Your task to perform on an android device: open wifi settings Image 0: 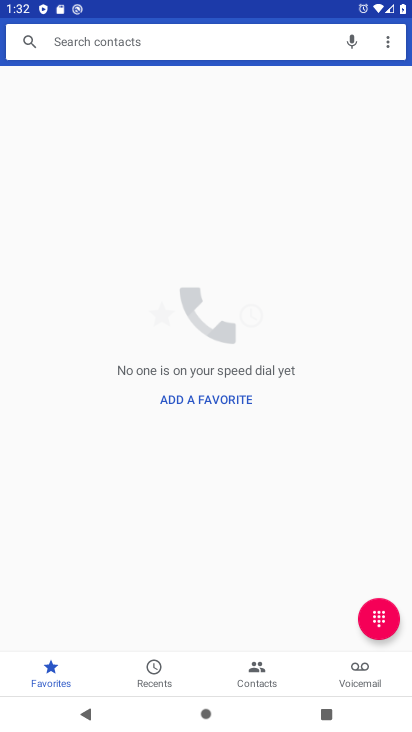
Step 0: drag from (146, 10) to (71, 509)
Your task to perform on an android device: open wifi settings Image 1: 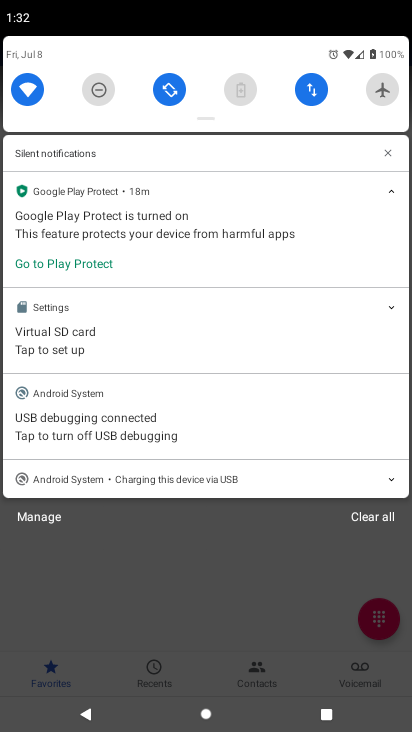
Step 1: click (36, 105)
Your task to perform on an android device: open wifi settings Image 2: 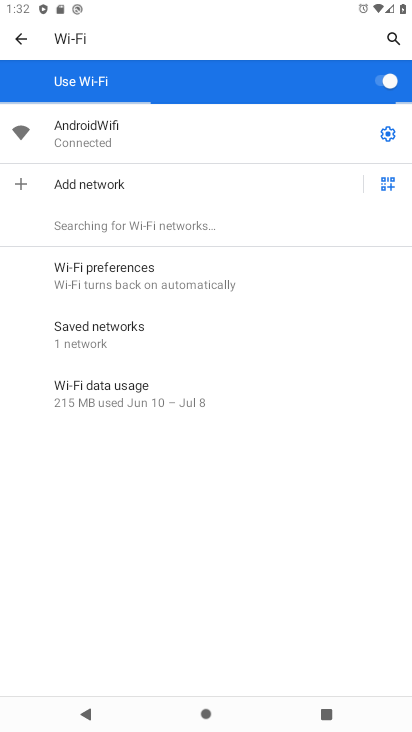
Step 2: task complete